Your task to perform on an android device: Go to Maps Image 0: 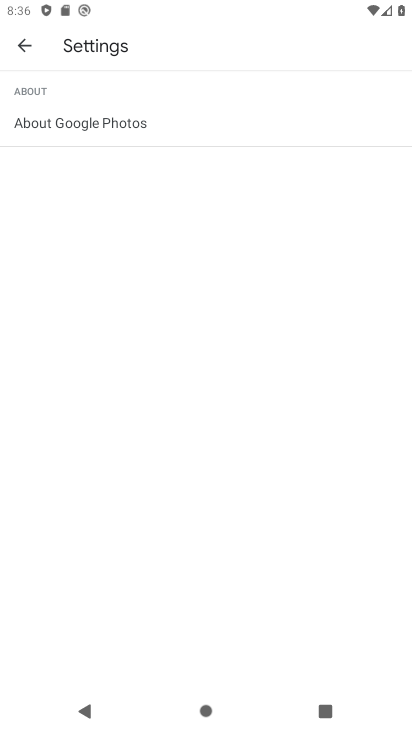
Step 0: press home button
Your task to perform on an android device: Go to Maps Image 1: 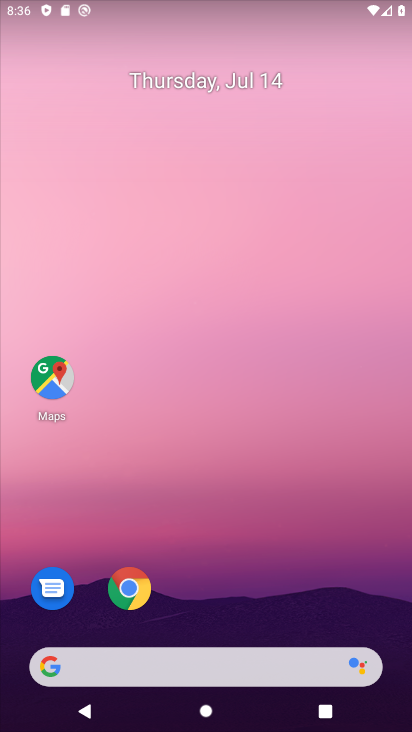
Step 1: click (61, 378)
Your task to perform on an android device: Go to Maps Image 2: 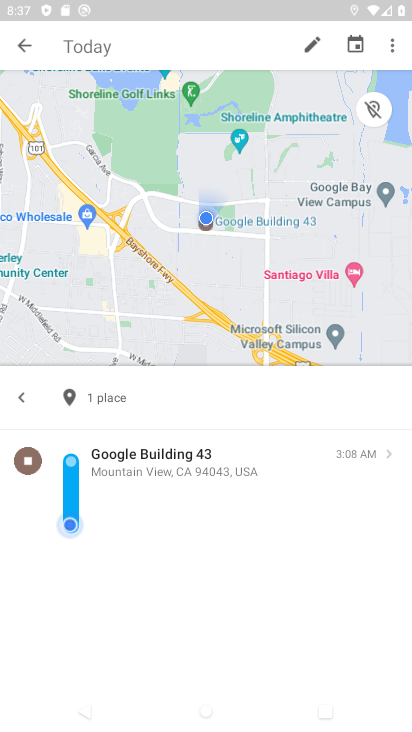
Step 2: task complete